Your task to perform on an android device: turn on priority inbox in the gmail app Image 0: 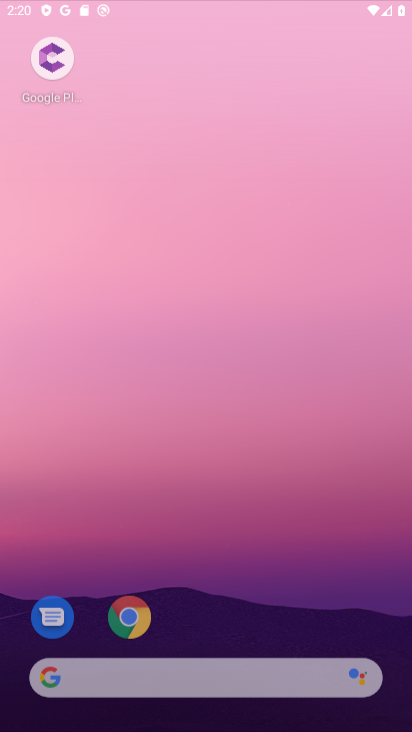
Step 0: drag from (204, 180) to (210, 51)
Your task to perform on an android device: turn on priority inbox in the gmail app Image 1: 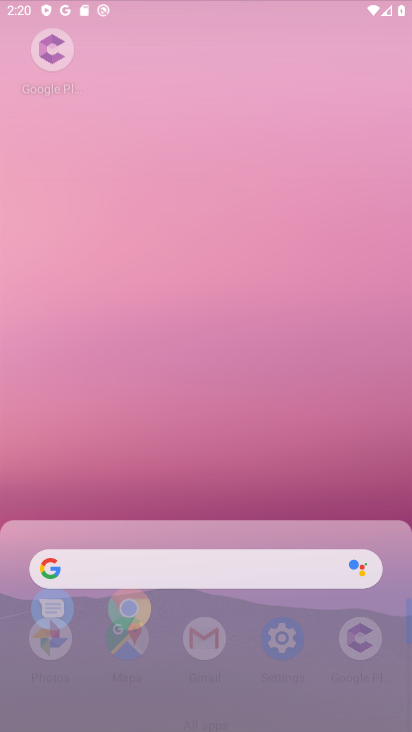
Step 1: drag from (193, 414) to (193, 226)
Your task to perform on an android device: turn on priority inbox in the gmail app Image 2: 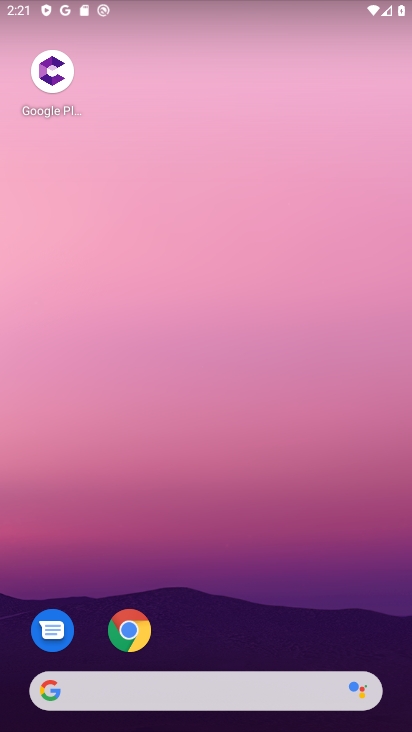
Step 2: drag from (225, 563) to (244, 399)
Your task to perform on an android device: turn on priority inbox in the gmail app Image 3: 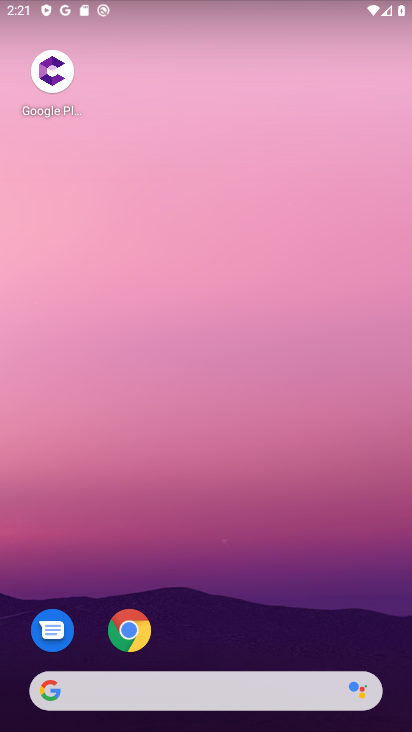
Step 3: drag from (251, 549) to (278, 234)
Your task to perform on an android device: turn on priority inbox in the gmail app Image 4: 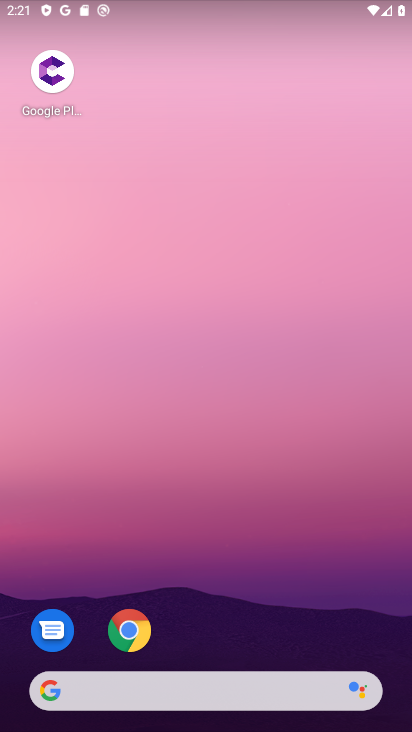
Step 4: drag from (204, 616) to (189, 191)
Your task to perform on an android device: turn on priority inbox in the gmail app Image 5: 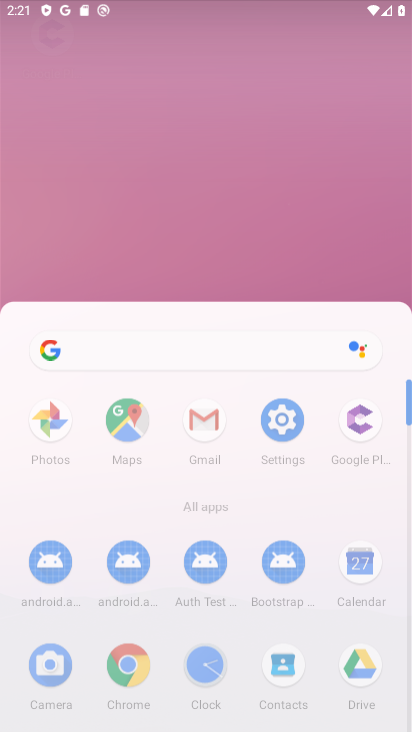
Step 5: drag from (191, 510) to (168, 38)
Your task to perform on an android device: turn on priority inbox in the gmail app Image 6: 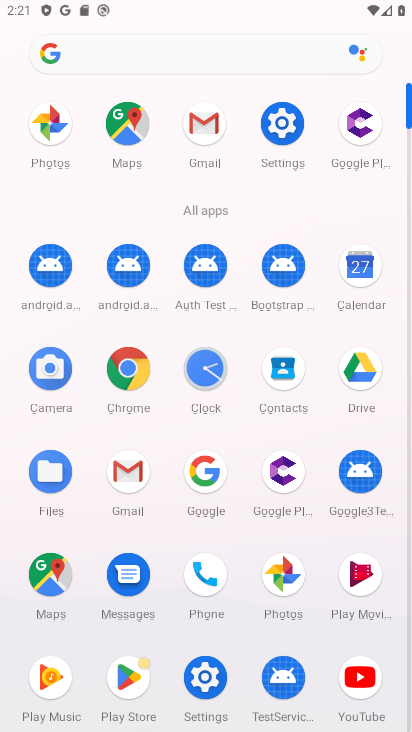
Step 6: drag from (226, 463) to (205, 60)
Your task to perform on an android device: turn on priority inbox in the gmail app Image 7: 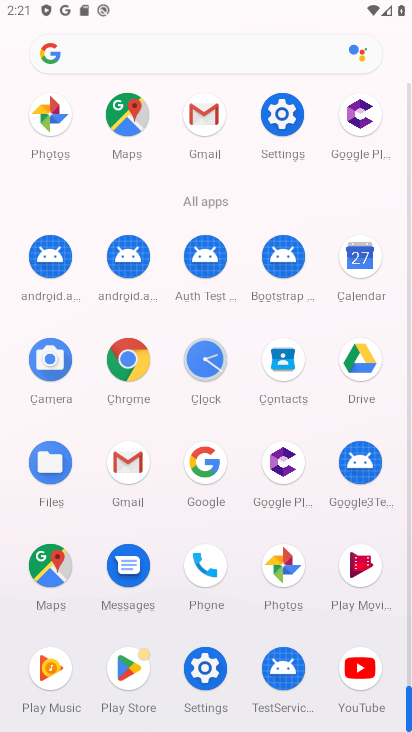
Step 7: click (120, 465)
Your task to perform on an android device: turn on priority inbox in the gmail app Image 8: 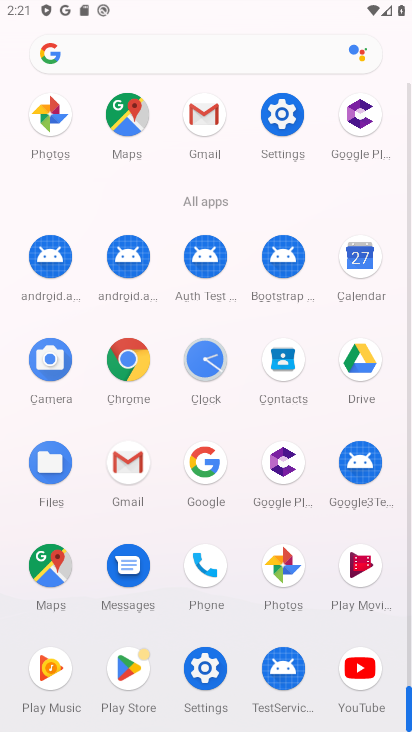
Step 8: click (121, 464)
Your task to perform on an android device: turn on priority inbox in the gmail app Image 9: 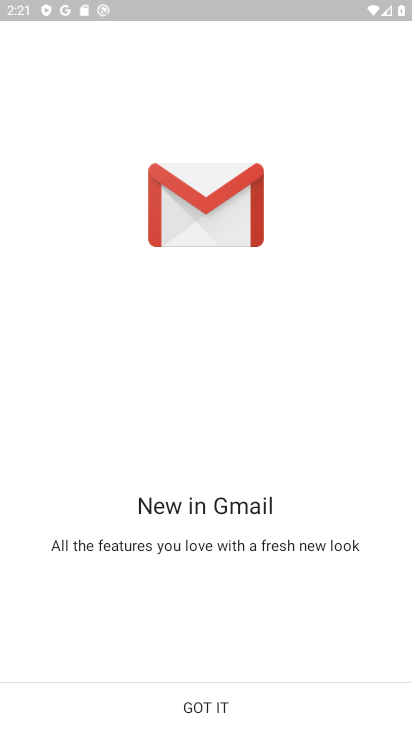
Step 9: click (215, 692)
Your task to perform on an android device: turn on priority inbox in the gmail app Image 10: 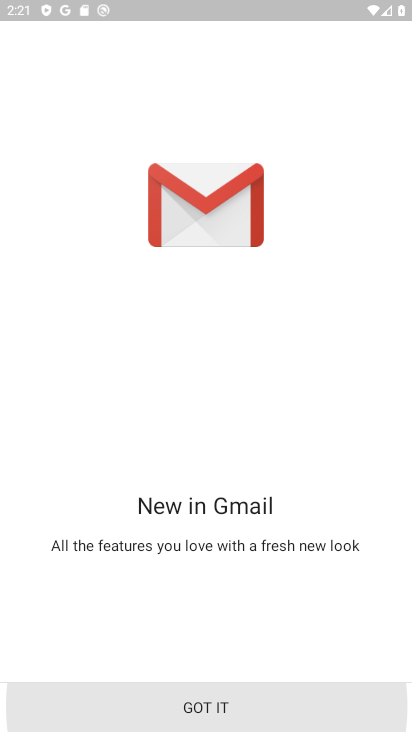
Step 10: click (215, 696)
Your task to perform on an android device: turn on priority inbox in the gmail app Image 11: 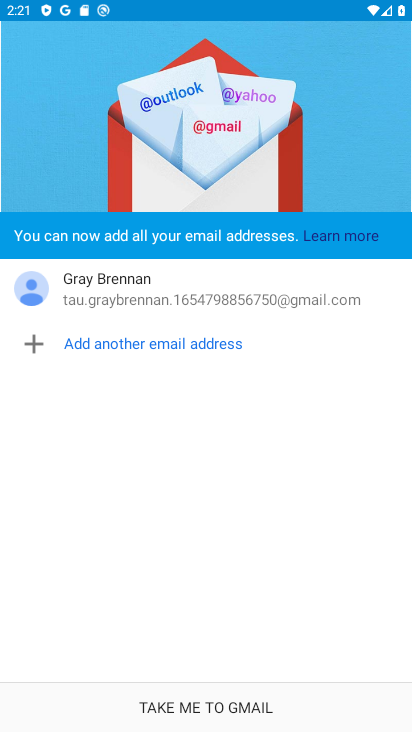
Step 11: click (228, 694)
Your task to perform on an android device: turn on priority inbox in the gmail app Image 12: 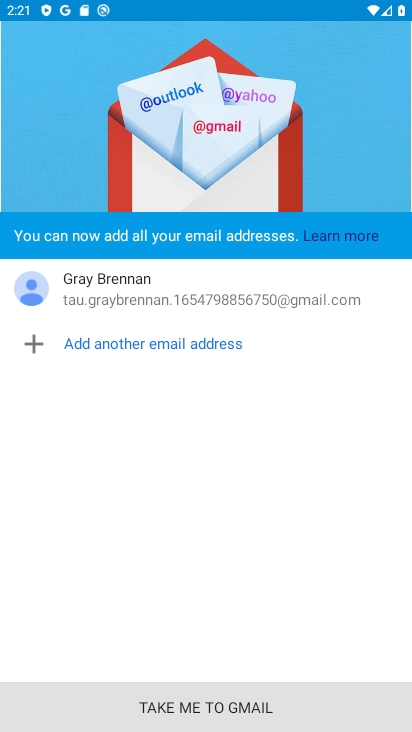
Step 12: click (249, 696)
Your task to perform on an android device: turn on priority inbox in the gmail app Image 13: 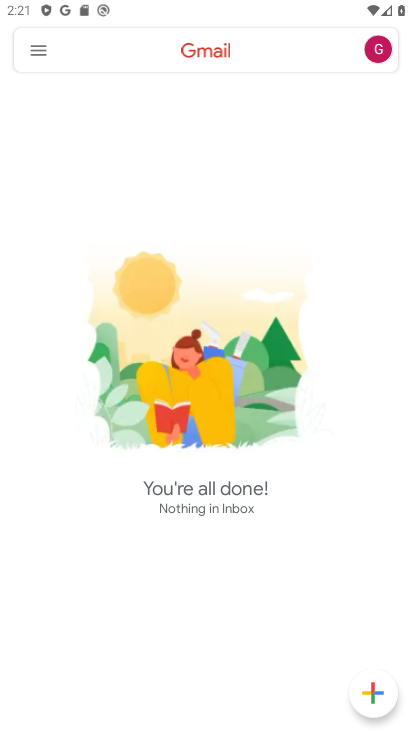
Step 13: click (36, 39)
Your task to perform on an android device: turn on priority inbox in the gmail app Image 14: 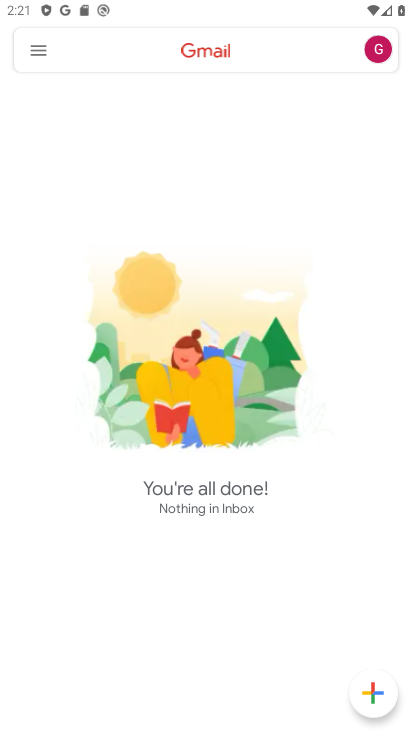
Step 14: click (36, 39)
Your task to perform on an android device: turn on priority inbox in the gmail app Image 15: 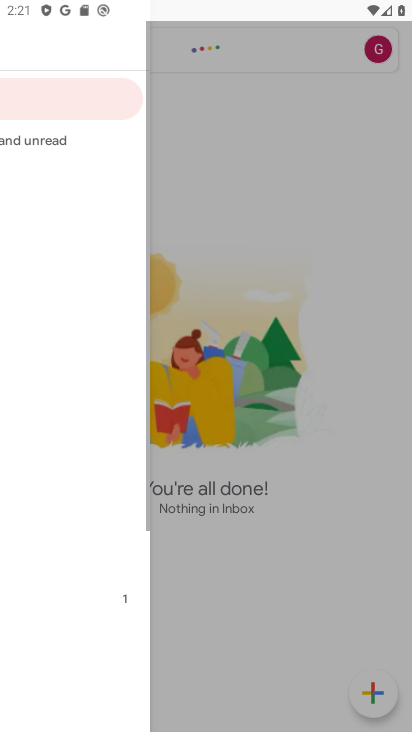
Step 15: click (36, 39)
Your task to perform on an android device: turn on priority inbox in the gmail app Image 16: 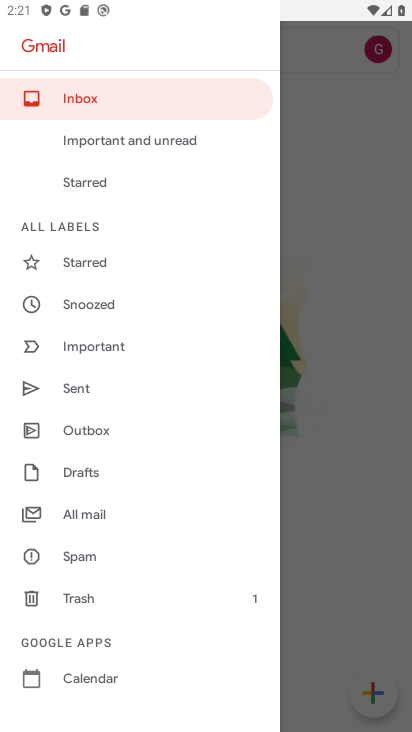
Step 16: drag from (129, 571) to (68, 239)
Your task to perform on an android device: turn on priority inbox in the gmail app Image 17: 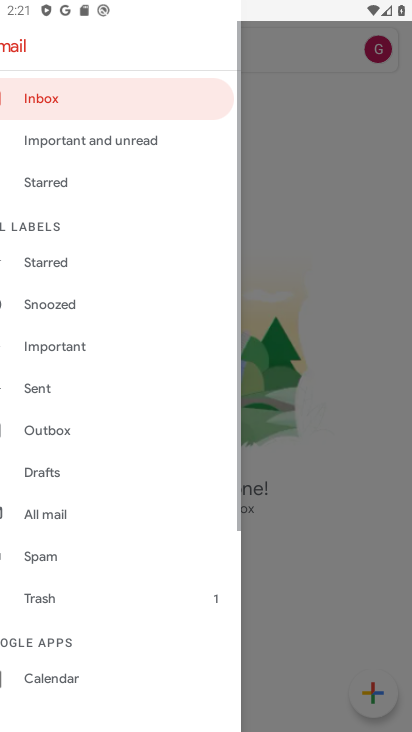
Step 17: drag from (140, 536) to (115, 170)
Your task to perform on an android device: turn on priority inbox in the gmail app Image 18: 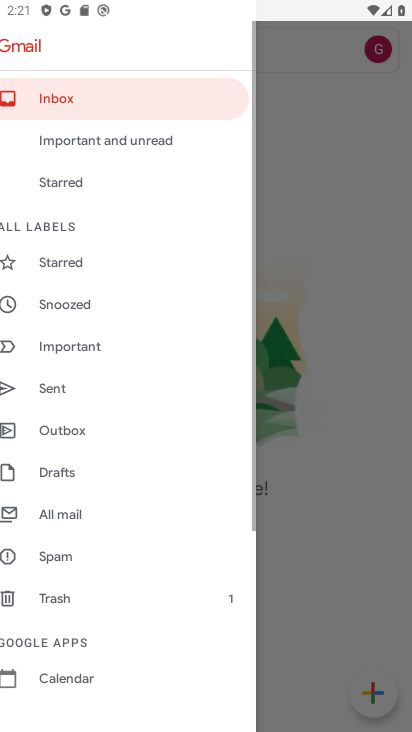
Step 18: drag from (115, 469) to (115, 228)
Your task to perform on an android device: turn on priority inbox in the gmail app Image 19: 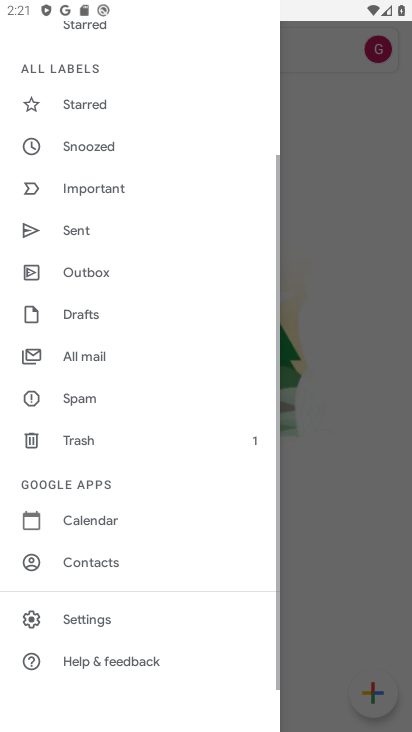
Step 19: drag from (129, 534) to (129, 210)
Your task to perform on an android device: turn on priority inbox in the gmail app Image 20: 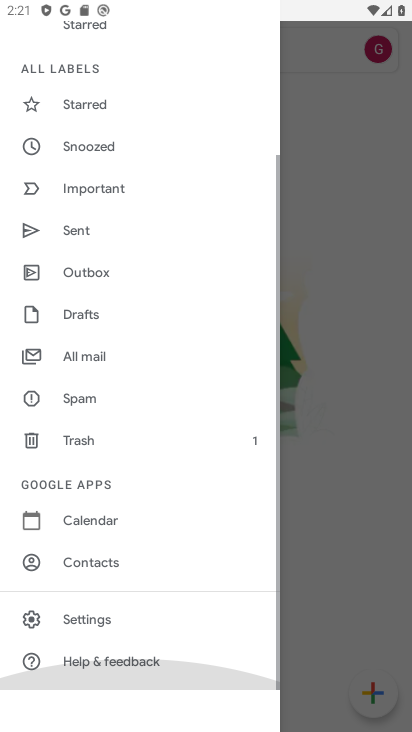
Step 20: drag from (99, 524) to (99, 287)
Your task to perform on an android device: turn on priority inbox in the gmail app Image 21: 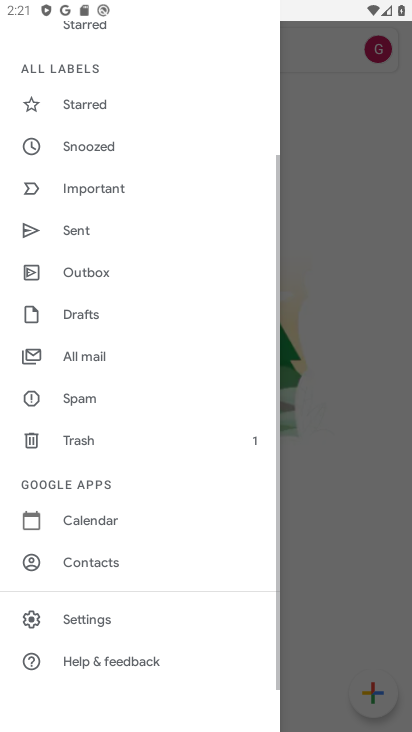
Step 21: click (78, 610)
Your task to perform on an android device: turn on priority inbox in the gmail app Image 22: 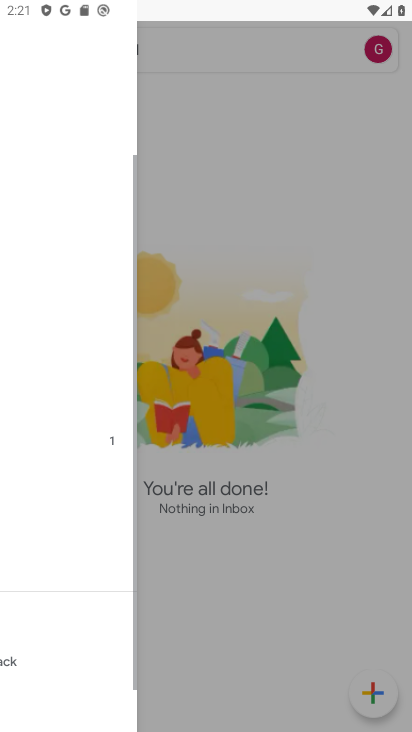
Step 22: click (82, 614)
Your task to perform on an android device: turn on priority inbox in the gmail app Image 23: 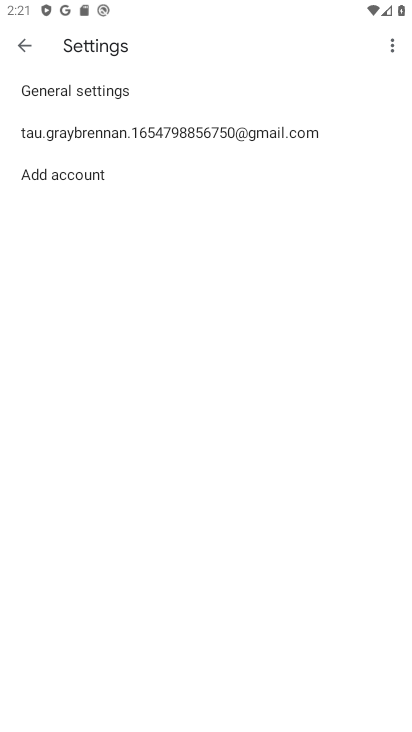
Step 23: click (78, 128)
Your task to perform on an android device: turn on priority inbox in the gmail app Image 24: 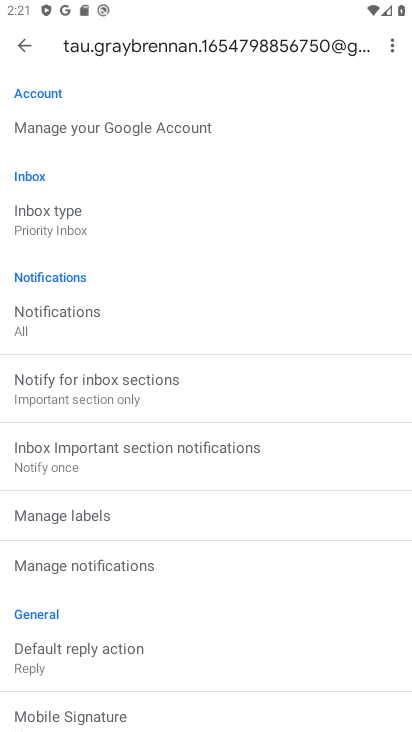
Step 24: task complete